Your task to perform on an android device: turn off data saver in the chrome app Image 0: 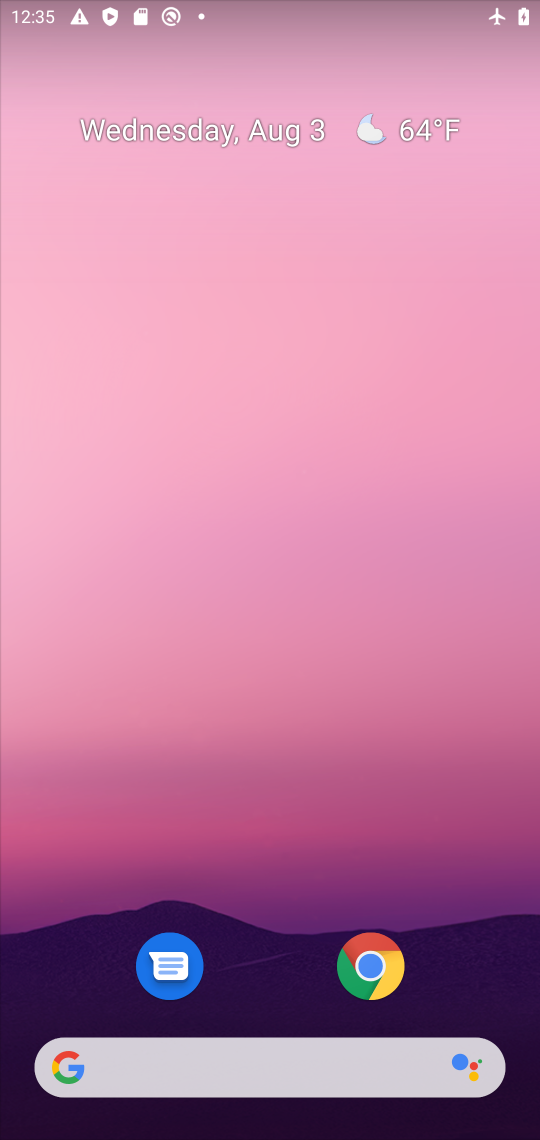
Step 0: click (382, 957)
Your task to perform on an android device: turn off data saver in the chrome app Image 1: 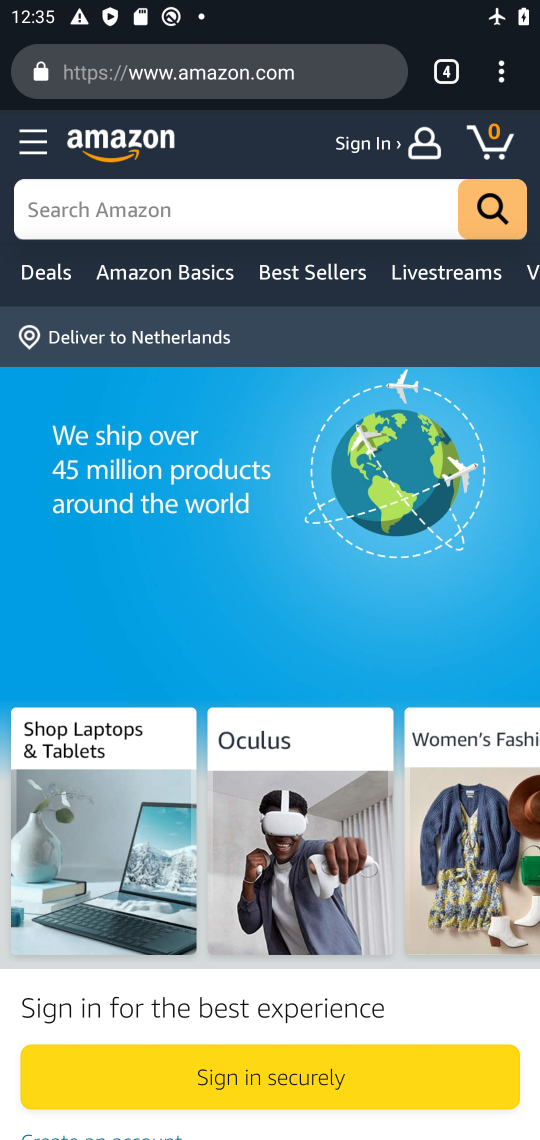
Step 1: click (497, 82)
Your task to perform on an android device: turn off data saver in the chrome app Image 2: 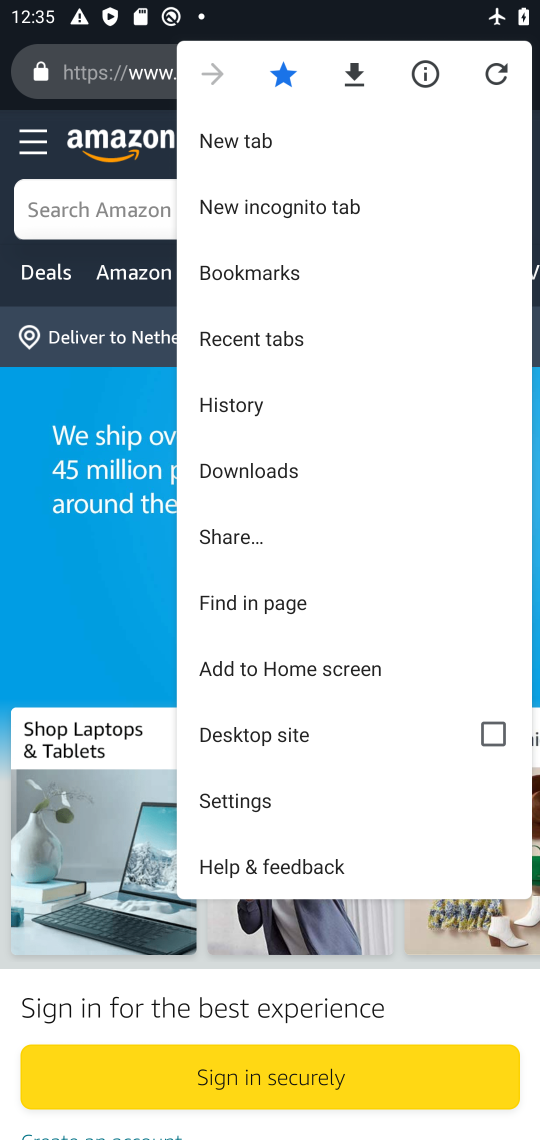
Step 2: click (311, 799)
Your task to perform on an android device: turn off data saver in the chrome app Image 3: 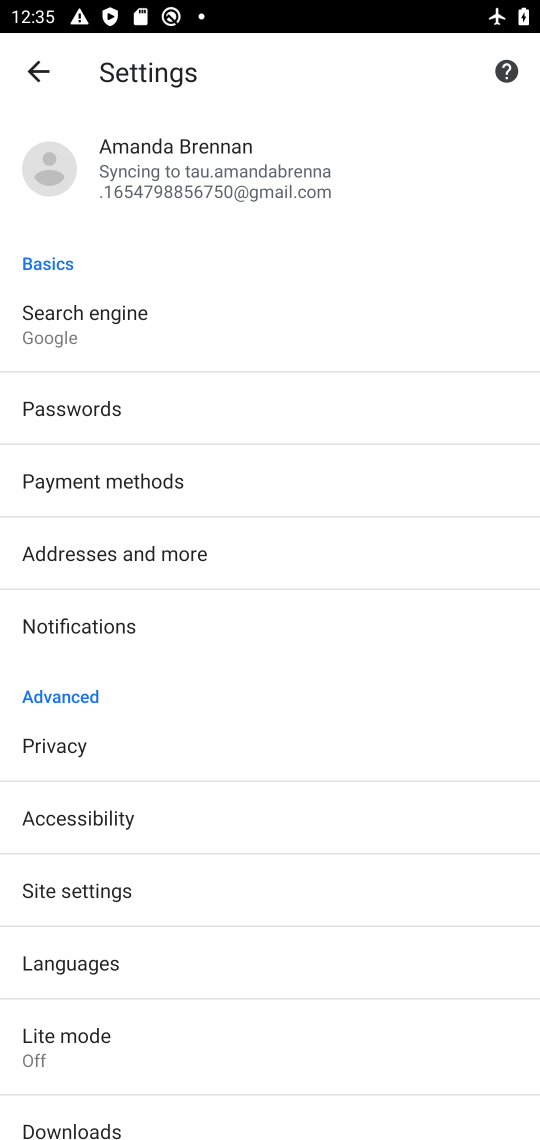
Step 3: click (166, 1038)
Your task to perform on an android device: turn off data saver in the chrome app Image 4: 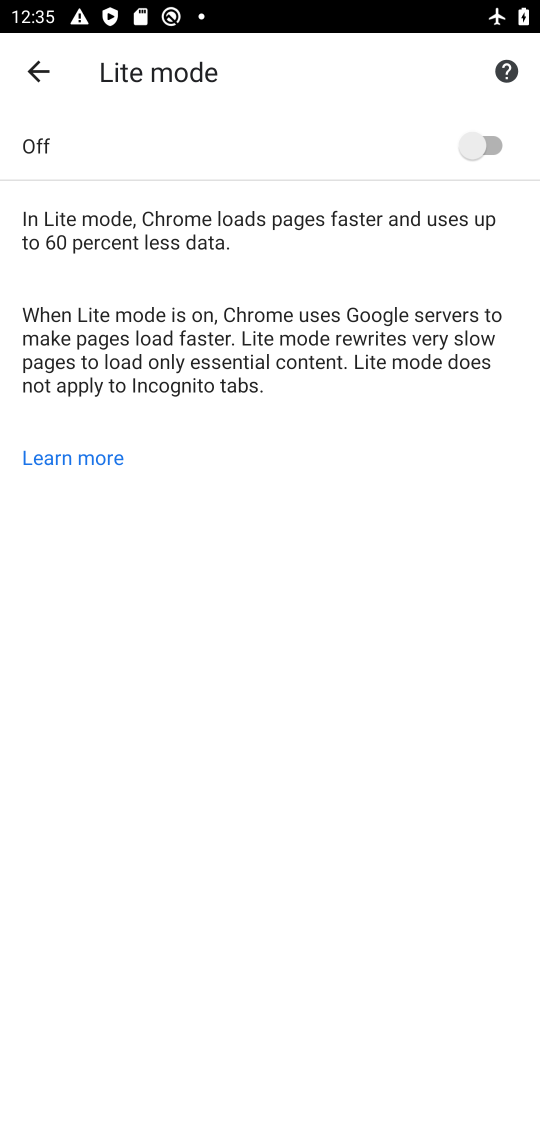
Step 4: task complete